Your task to perform on an android device: delete a single message in the gmail app Image 0: 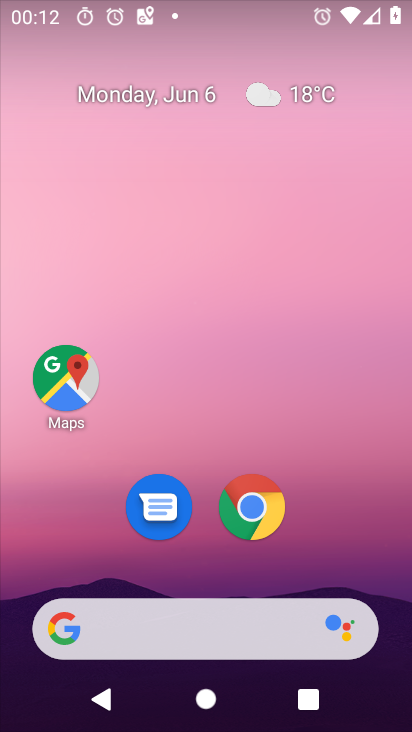
Step 0: drag from (235, 719) to (217, 50)
Your task to perform on an android device: delete a single message in the gmail app Image 1: 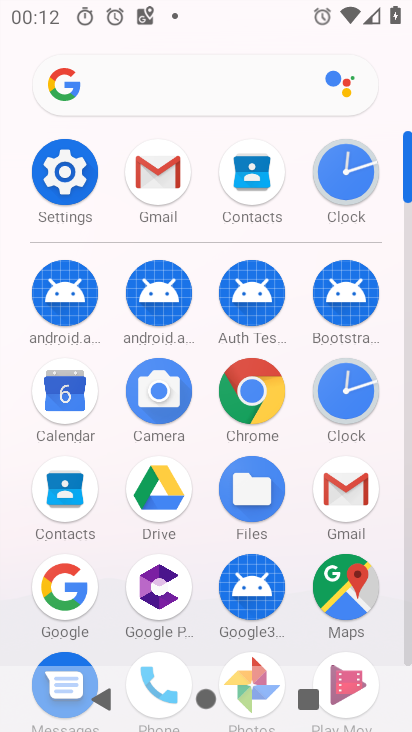
Step 1: click (344, 498)
Your task to perform on an android device: delete a single message in the gmail app Image 2: 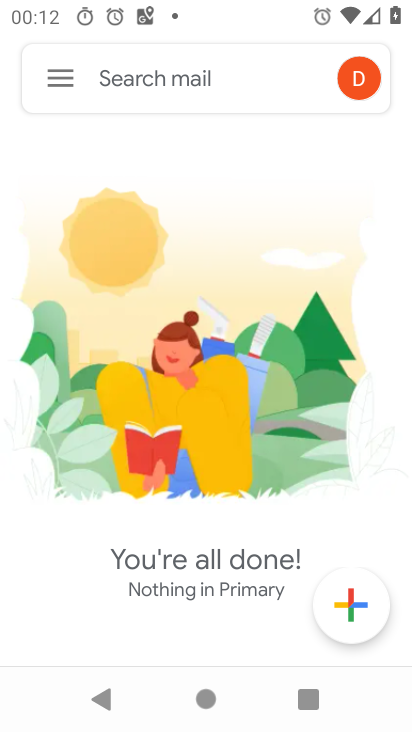
Step 2: task complete